Your task to perform on an android device: turn notification dots off Image 0: 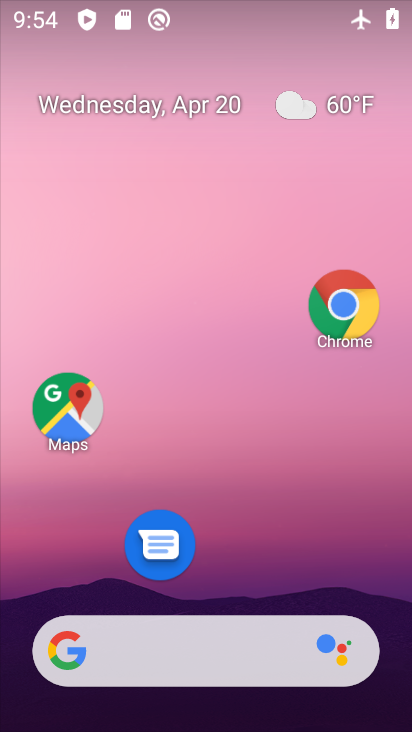
Step 0: drag from (283, 612) to (303, 146)
Your task to perform on an android device: turn notification dots off Image 1: 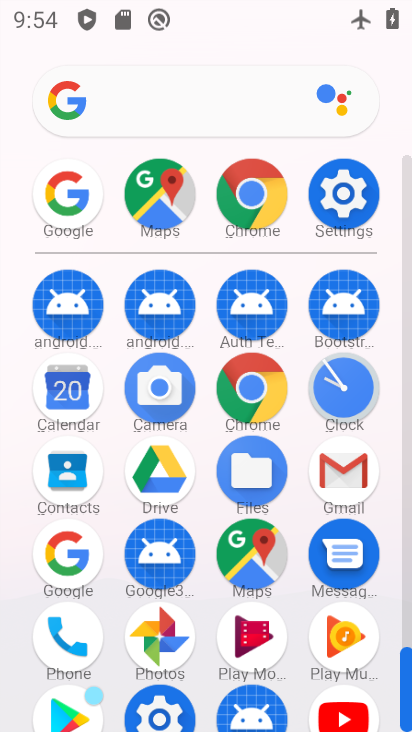
Step 1: click (334, 200)
Your task to perform on an android device: turn notification dots off Image 2: 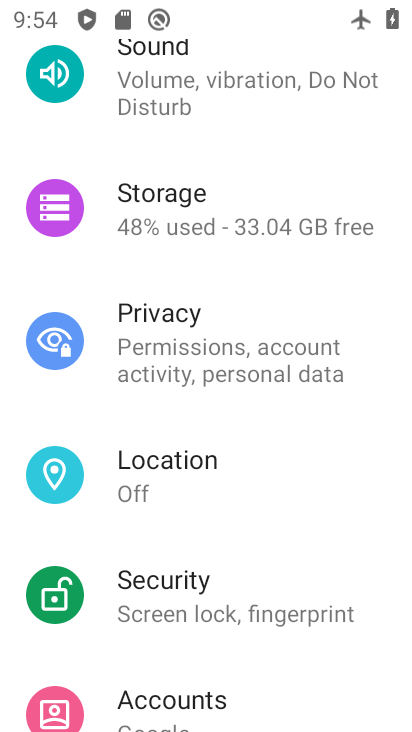
Step 2: drag from (201, 273) to (171, 612)
Your task to perform on an android device: turn notification dots off Image 3: 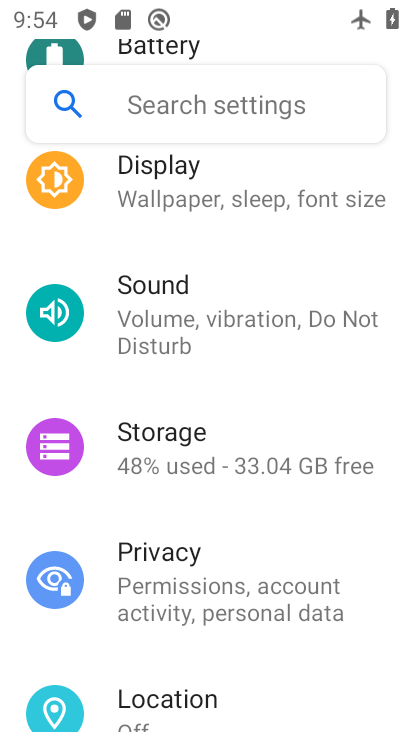
Step 3: drag from (214, 315) to (190, 571)
Your task to perform on an android device: turn notification dots off Image 4: 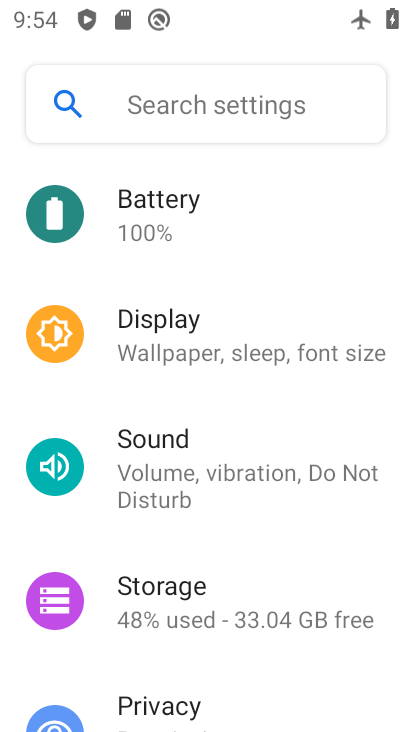
Step 4: drag from (203, 367) to (185, 624)
Your task to perform on an android device: turn notification dots off Image 5: 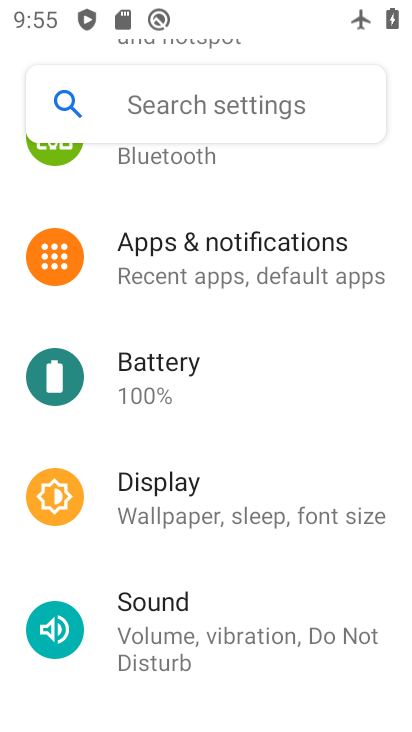
Step 5: drag from (227, 361) to (196, 540)
Your task to perform on an android device: turn notification dots off Image 6: 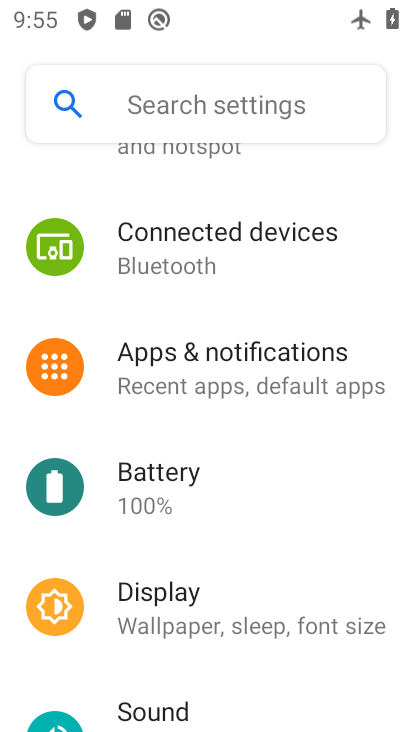
Step 6: click (244, 373)
Your task to perform on an android device: turn notification dots off Image 7: 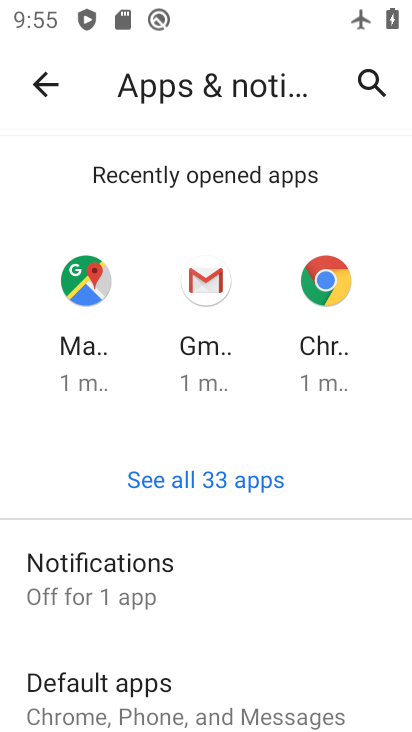
Step 7: click (160, 571)
Your task to perform on an android device: turn notification dots off Image 8: 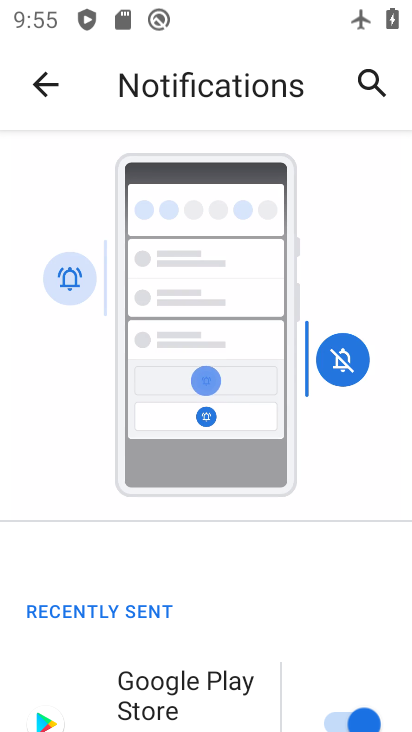
Step 8: drag from (268, 608) to (325, 184)
Your task to perform on an android device: turn notification dots off Image 9: 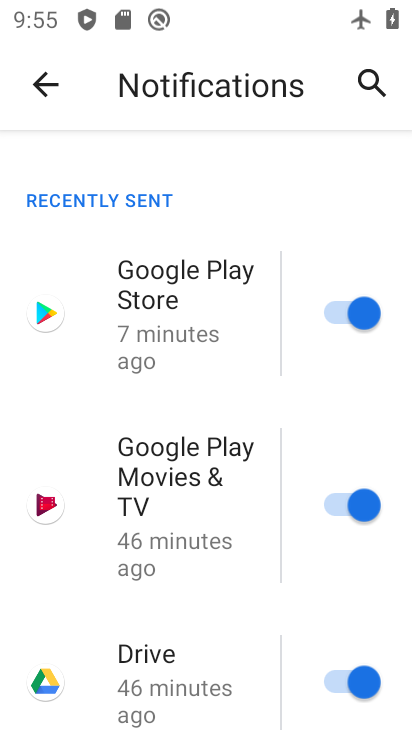
Step 9: drag from (254, 494) to (321, 213)
Your task to perform on an android device: turn notification dots off Image 10: 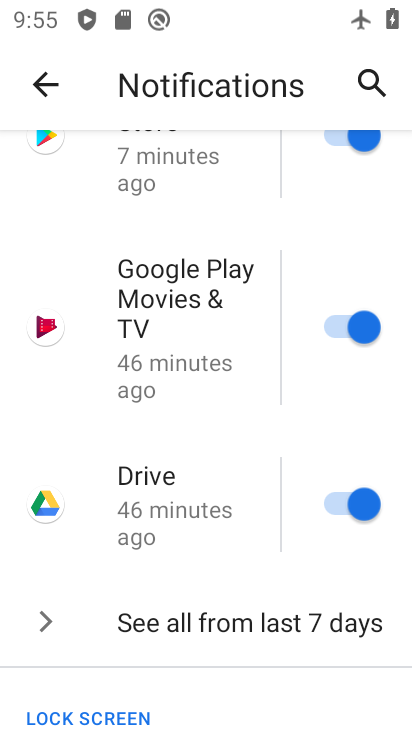
Step 10: drag from (207, 545) to (285, 213)
Your task to perform on an android device: turn notification dots off Image 11: 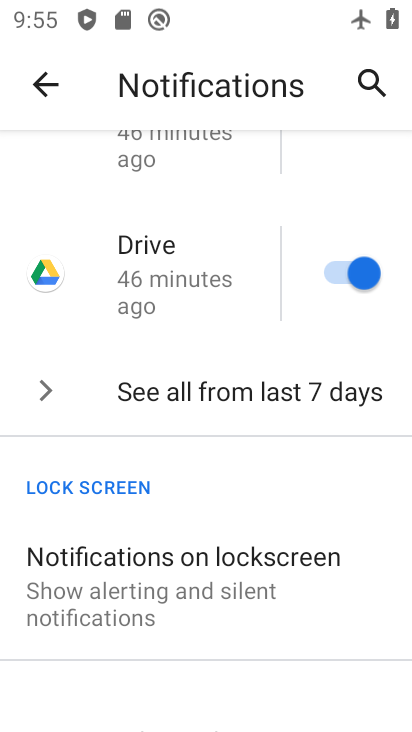
Step 11: drag from (213, 568) to (276, 279)
Your task to perform on an android device: turn notification dots off Image 12: 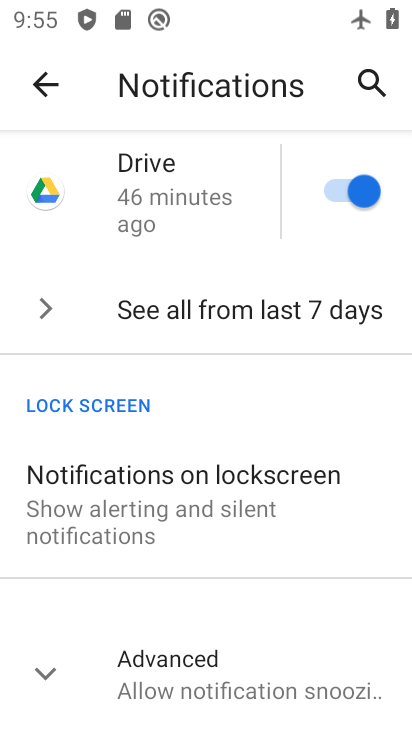
Step 12: drag from (220, 562) to (301, 289)
Your task to perform on an android device: turn notification dots off Image 13: 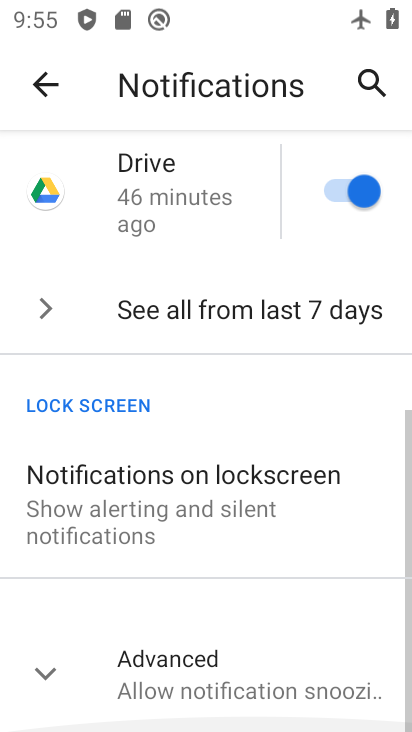
Step 13: click (212, 655)
Your task to perform on an android device: turn notification dots off Image 14: 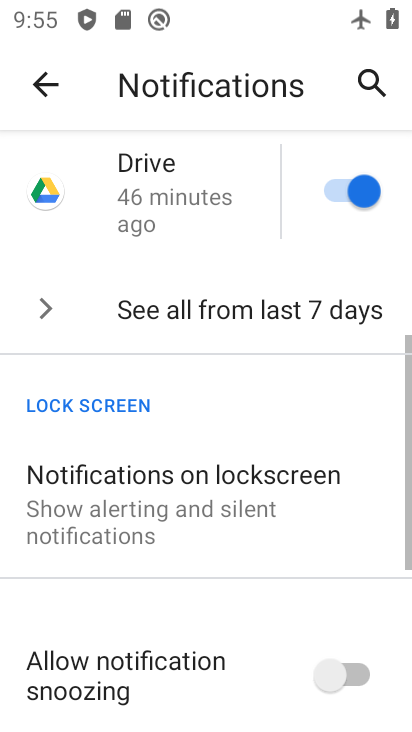
Step 14: drag from (242, 559) to (319, 236)
Your task to perform on an android device: turn notification dots off Image 15: 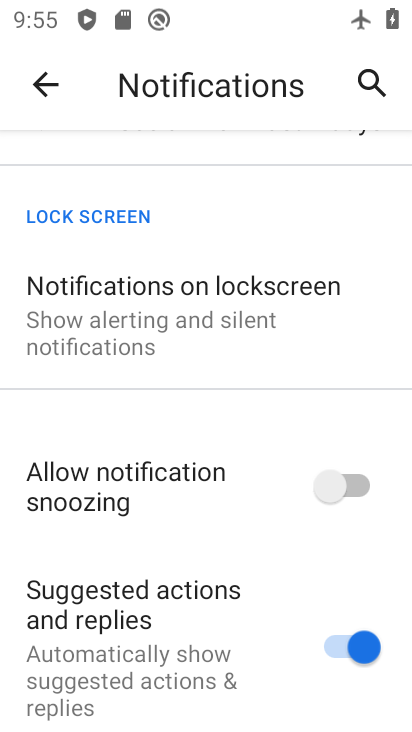
Step 15: drag from (261, 585) to (302, 217)
Your task to perform on an android device: turn notification dots off Image 16: 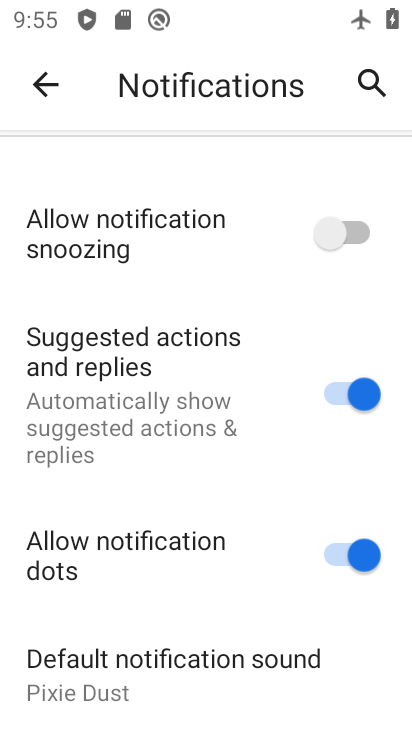
Step 16: click (344, 566)
Your task to perform on an android device: turn notification dots off Image 17: 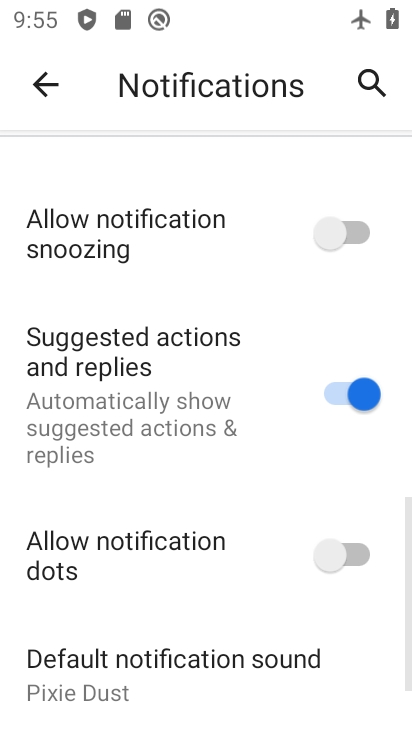
Step 17: task complete